Your task to perform on an android device: Open the calendar app, open the side menu, and click the "Day" option Image 0: 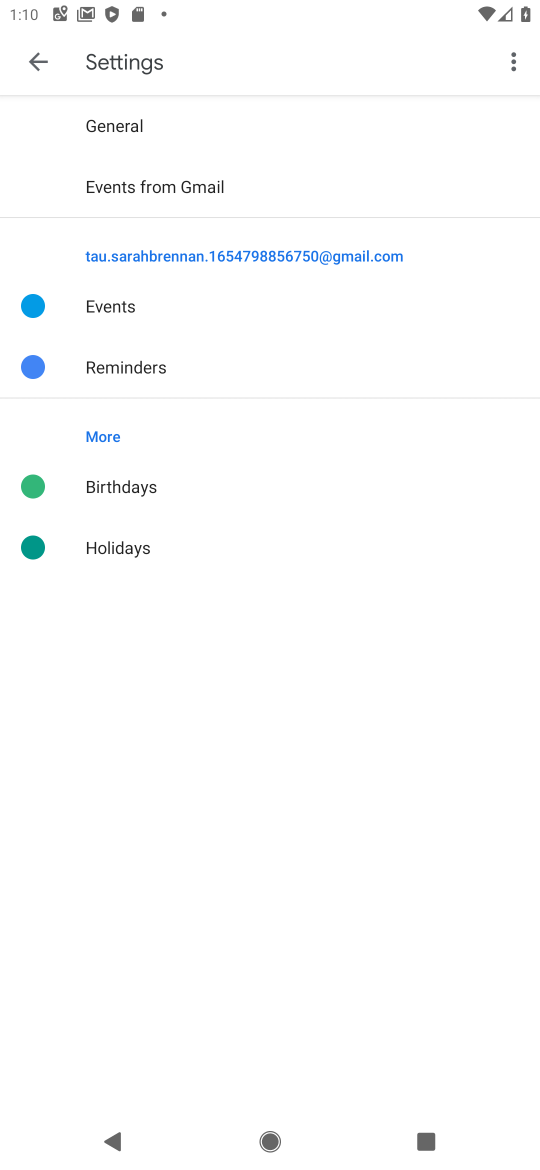
Step 0: press home button
Your task to perform on an android device: Open the calendar app, open the side menu, and click the "Day" option Image 1: 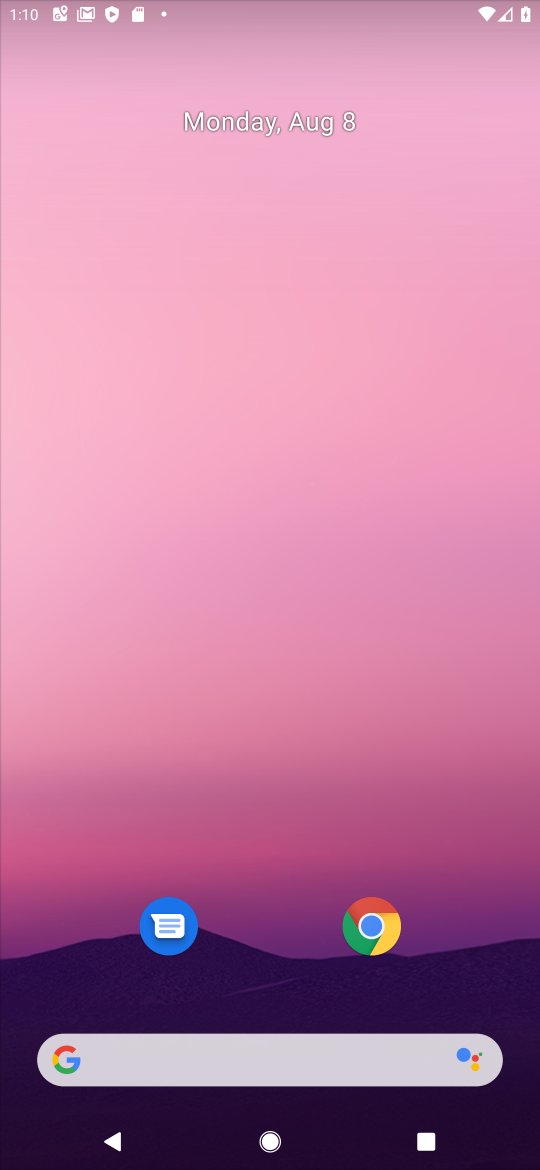
Step 1: drag from (281, 971) to (289, 225)
Your task to perform on an android device: Open the calendar app, open the side menu, and click the "Day" option Image 2: 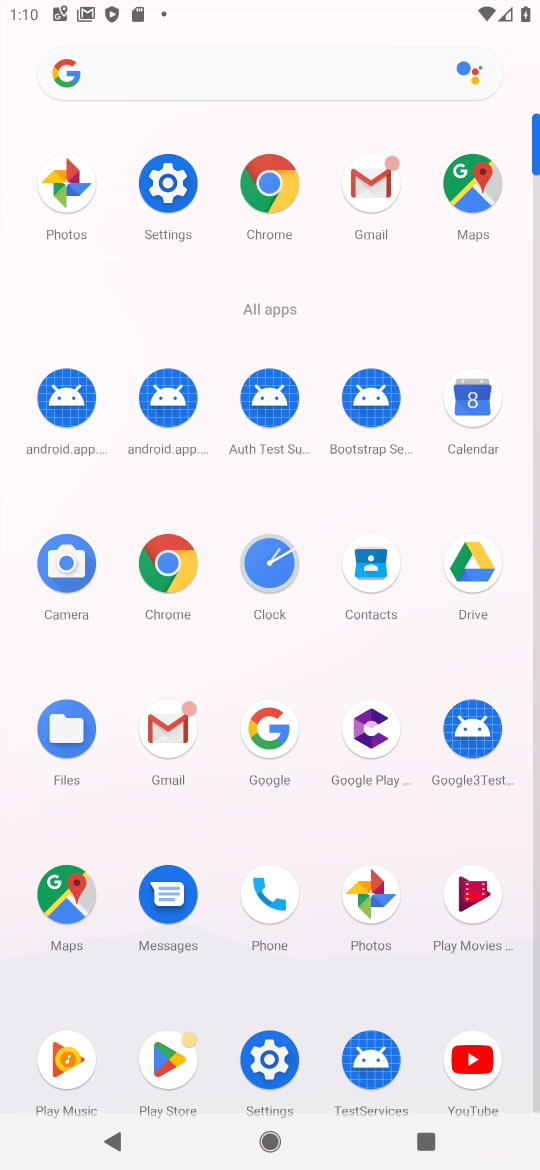
Step 2: click (453, 394)
Your task to perform on an android device: Open the calendar app, open the side menu, and click the "Day" option Image 3: 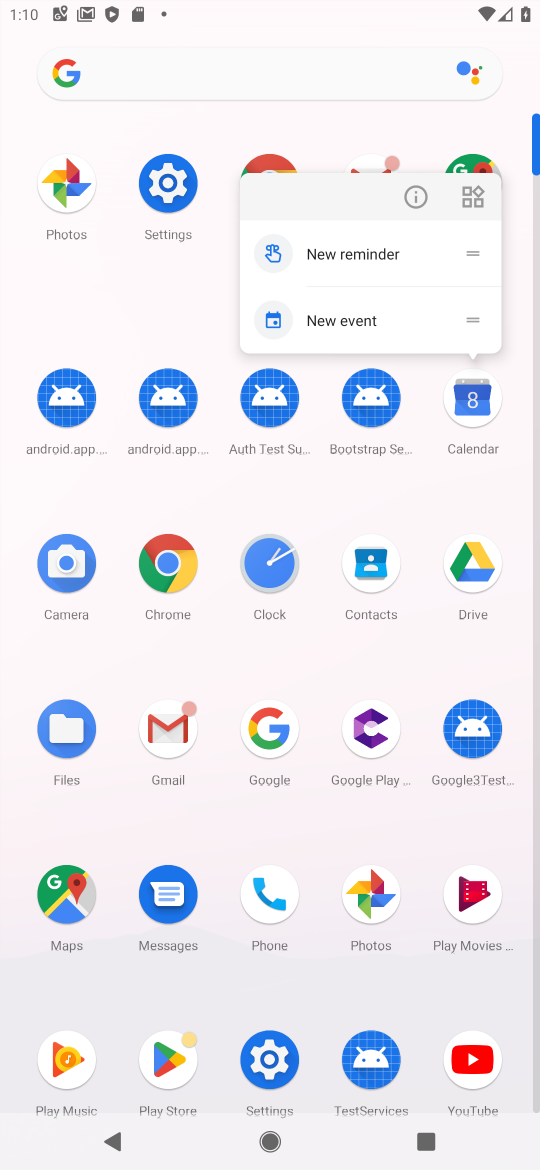
Step 3: click (460, 384)
Your task to perform on an android device: Open the calendar app, open the side menu, and click the "Day" option Image 4: 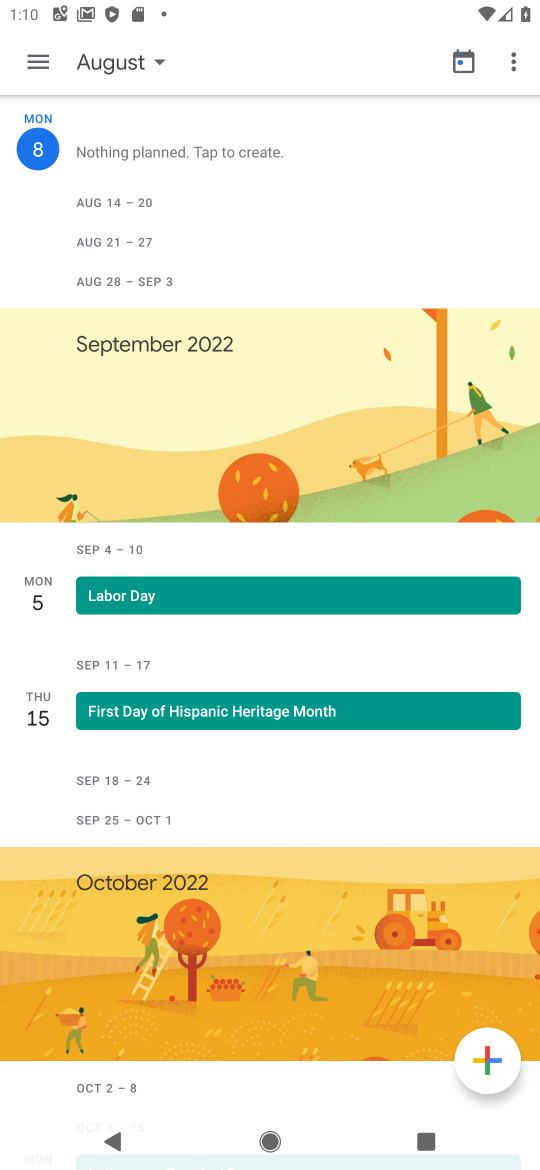
Step 4: click (29, 62)
Your task to perform on an android device: Open the calendar app, open the side menu, and click the "Day" option Image 5: 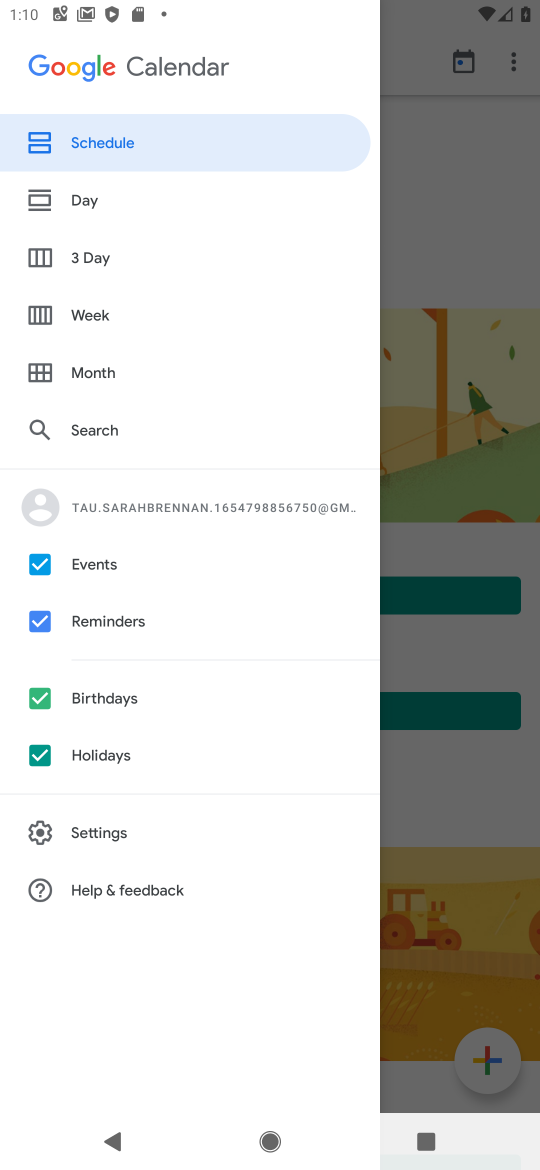
Step 5: click (99, 199)
Your task to perform on an android device: Open the calendar app, open the side menu, and click the "Day" option Image 6: 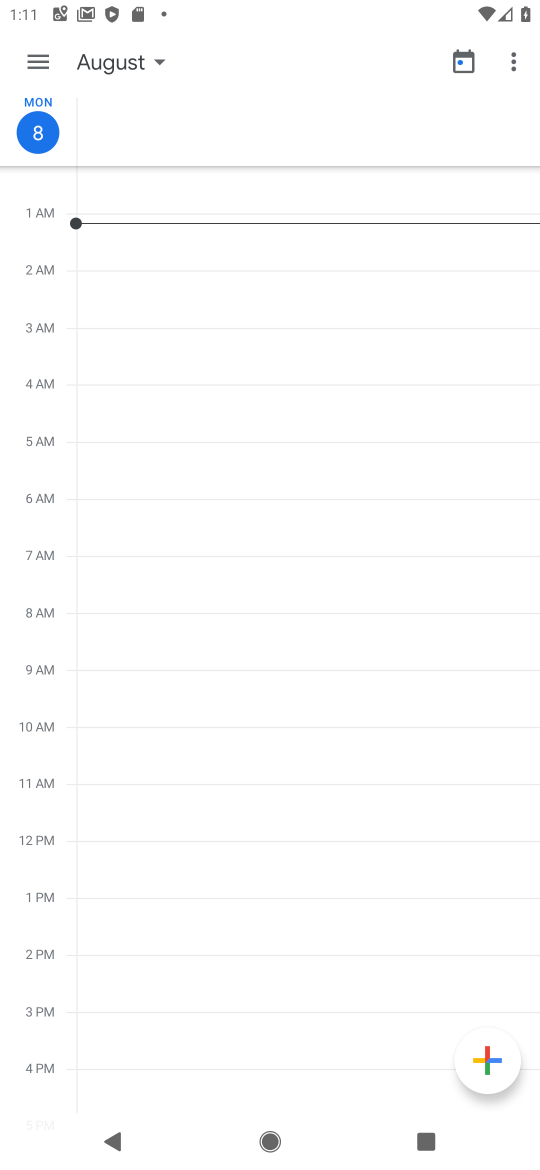
Step 6: task complete